Your task to perform on an android device: turn off translation in the chrome app Image 0: 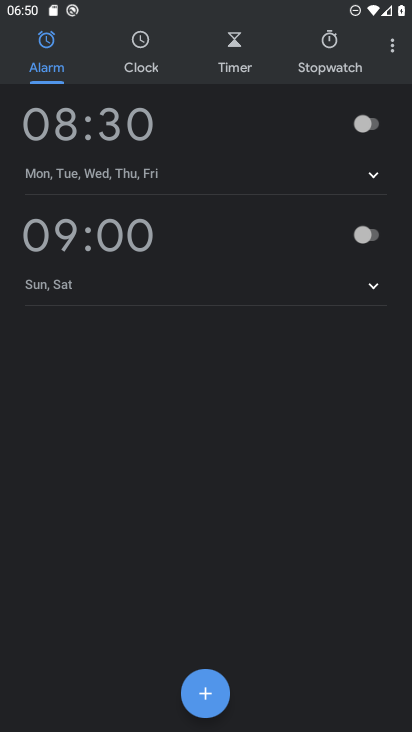
Step 0: press home button
Your task to perform on an android device: turn off translation in the chrome app Image 1: 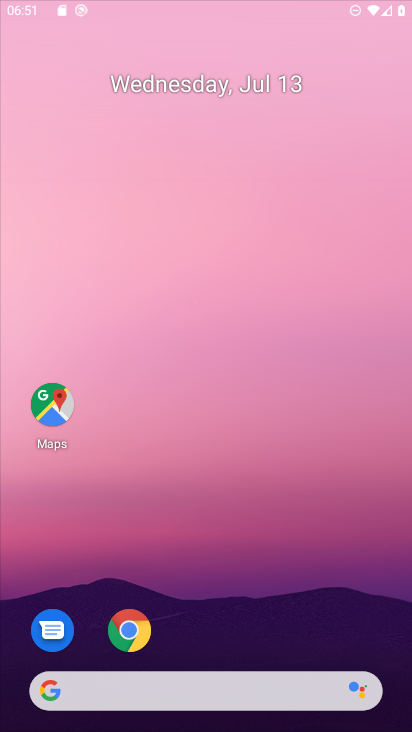
Step 1: drag from (281, 630) to (287, 102)
Your task to perform on an android device: turn off translation in the chrome app Image 2: 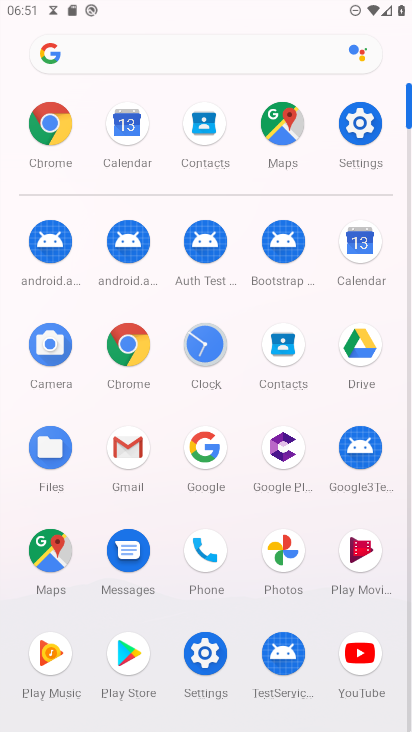
Step 2: click (130, 369)
Your task to perform on an android device: turn off translation in the chrome app Image 3: 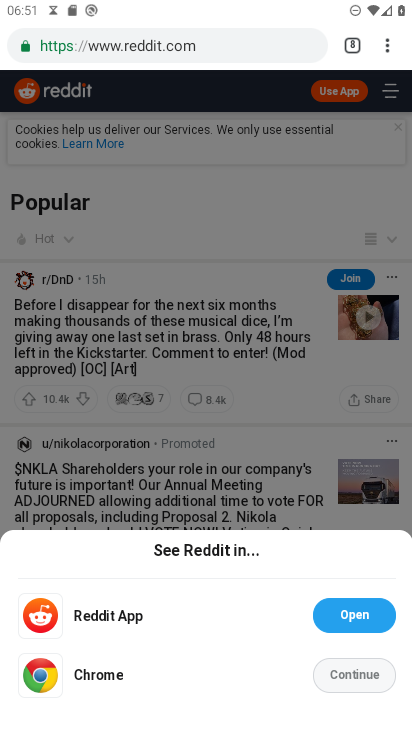
Step 3: drag from (392, 42) to (232, 549)
Your task to perform on an android device: turn off translation in the chrome app Image 4: 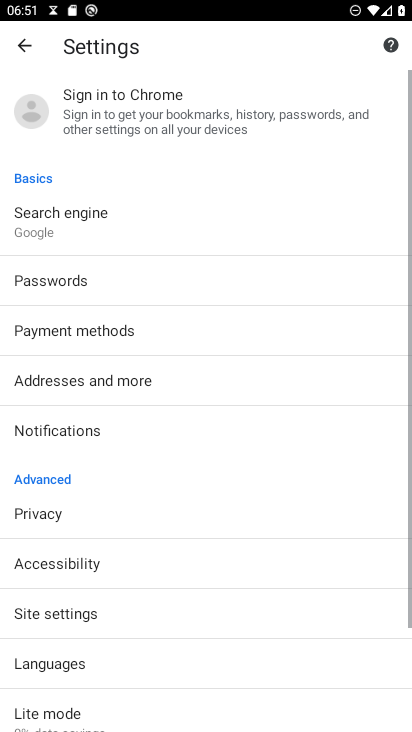
Step 4: drag from (224, 575) to (245, 237)
Your task to perform on an android device: turn off translation in the chrome app Image 5: 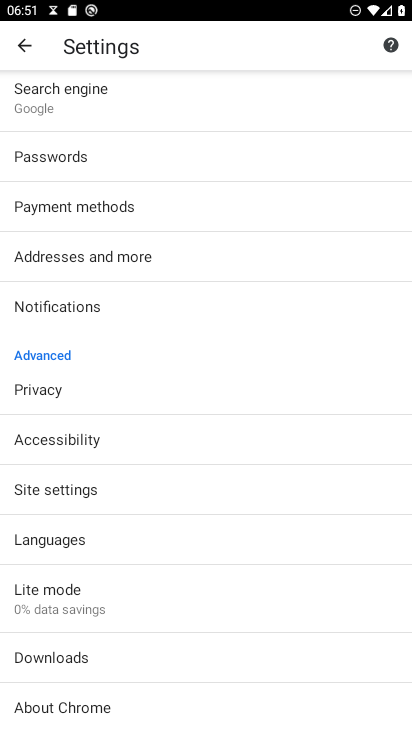
Step 5: click (50, 552)
Your task to perform on an android device: turn off translation in the chrome app Image 6: 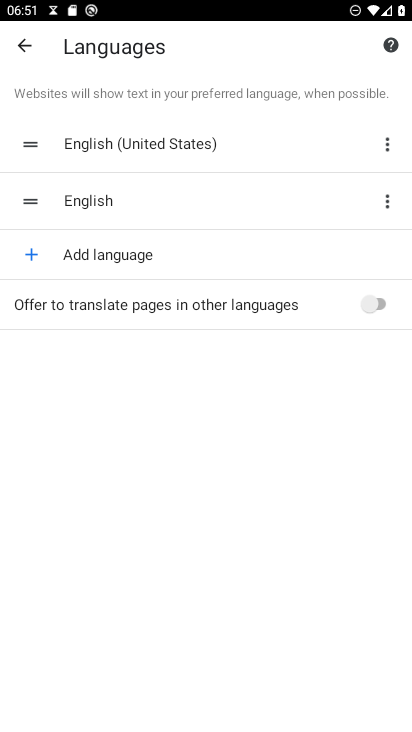
Step 6: task complete